Your task to perform on an android device: turn on sleep mode Image 0: 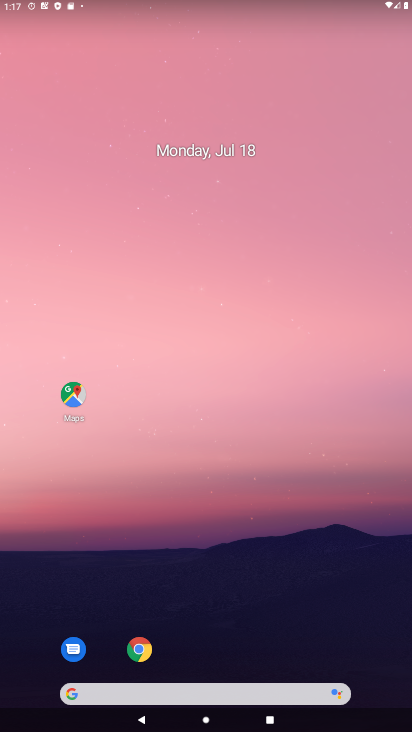
Step 0: drag from (249, 637) to (205, 107)
Your task to perform on an android device: turn on sleep mode Image 1: 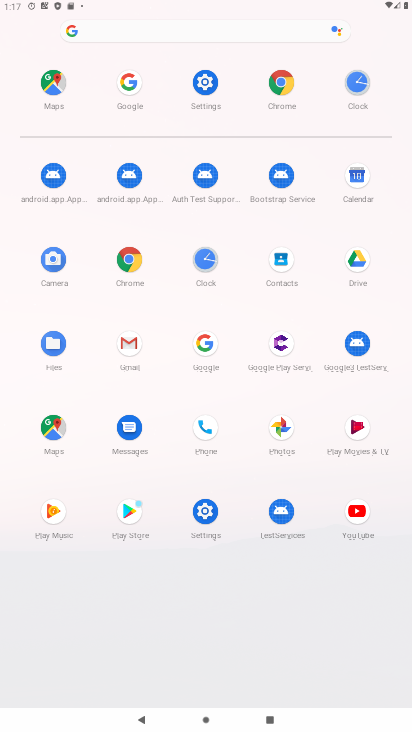
Step 1: click (203, 88)
Your task to perform on an android device: turn on sleep mode Image 2: 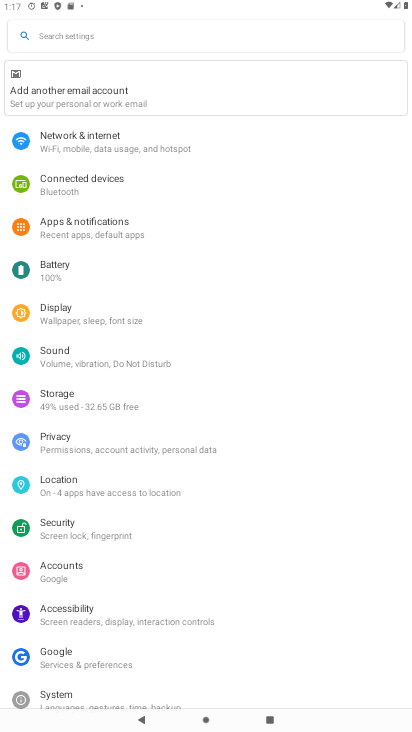
Step 2: click (61, 312)
Your task to perform on an android device: turn on sleep mode Image 3: 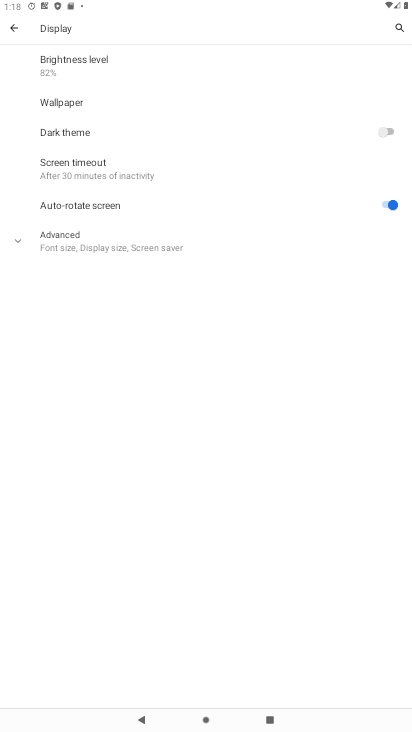
Step 3: task complete